Your task to perform on an android device: uninstall "Etsy: Buy & Sell Unique Items" Image 0: 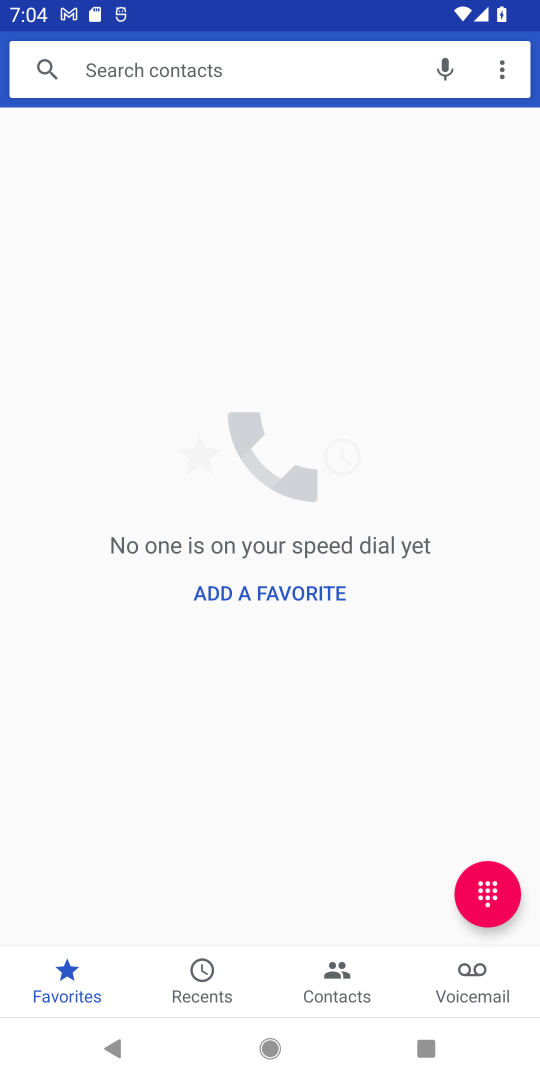
Step 0: press home button
Your task to perform on an android device: uninstall "Etsy: Buy & Sell Unique Items" Image 1: 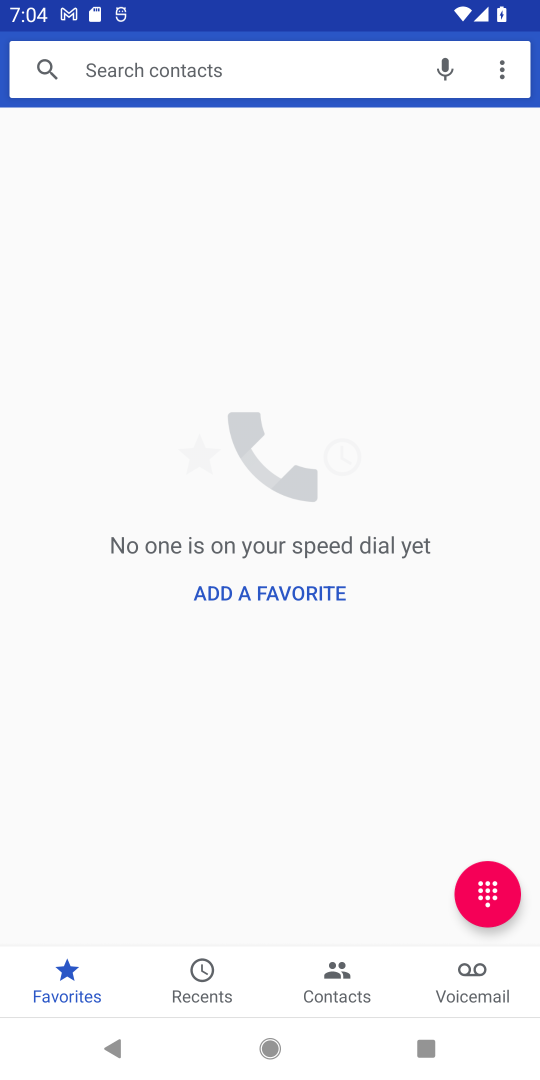
Step 1: press home button
Your task to perform on an android device: uninstall "Etsy: Buy & Sell Unique Items" Image 2: 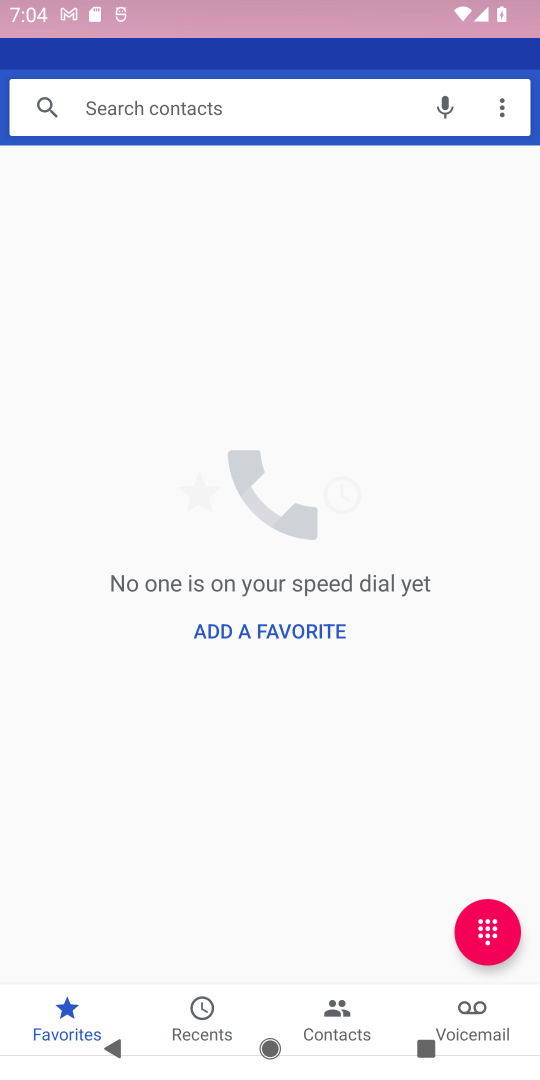
Step 2: press home button
Your task to perform on an android device: uninstall "Etsy: Buy & Sell Unique Items" Image 3: 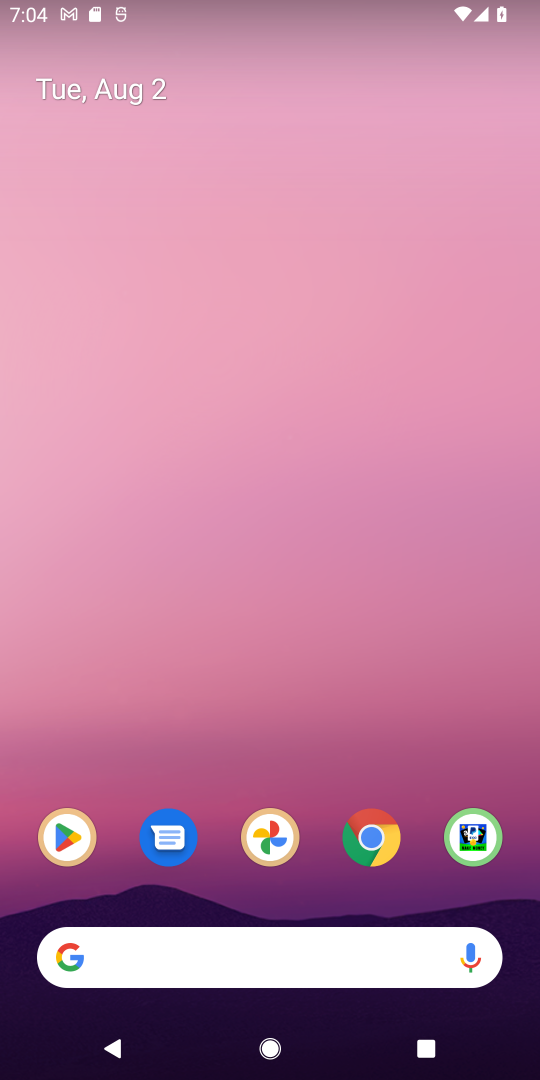
Step 3: click (313, 426)
Your task to perform on an android device: uninstall "Etsy: Buy & Sell Unique Items" Image 4: 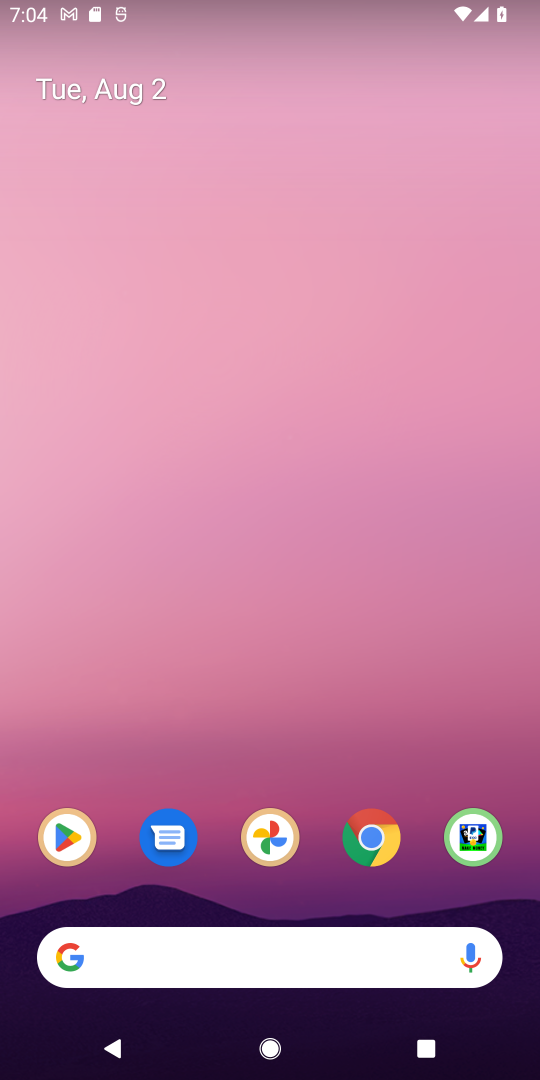
Step 4: drag from (229, 842) to (297, 547)
Your task to perform on an android device: uninstall "Etsy: Buy & Sell Unique Items" Image 5: 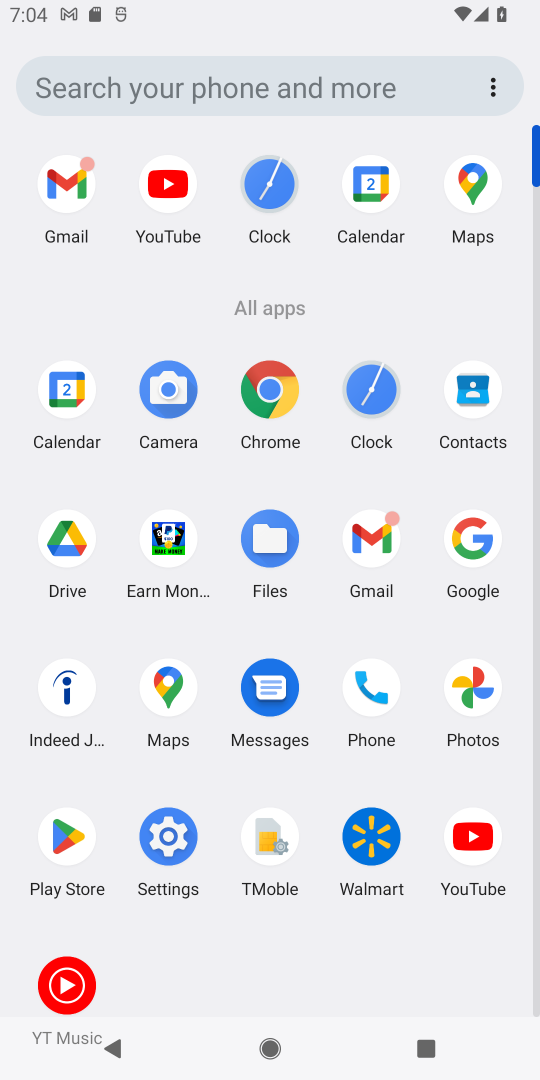
Step 5: click (62, 838)
Your task to perform on an android device: uninstall "Etsy: Buy & Sell Unique Items" Image 6: 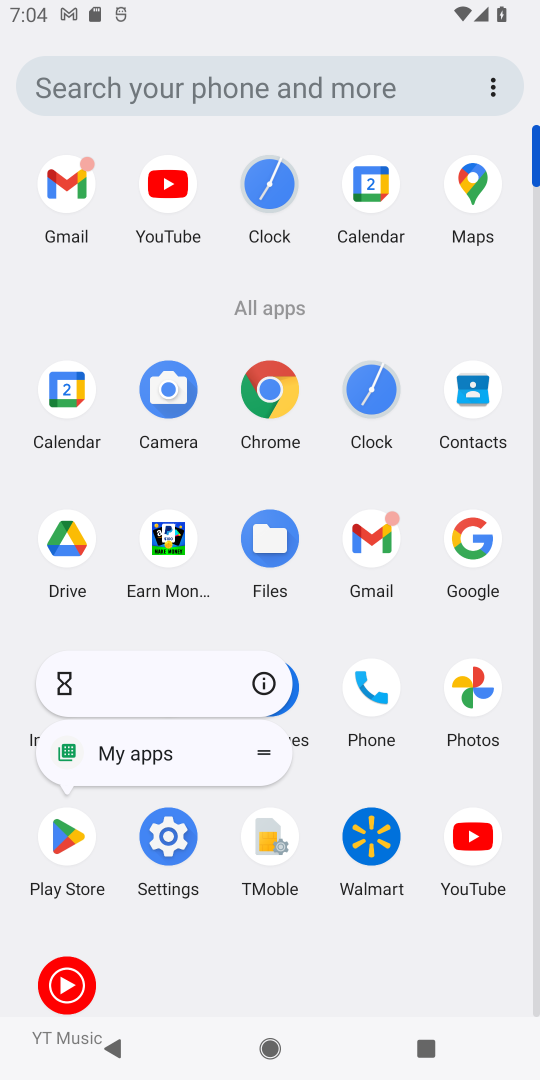
Step 6: click (266, 677)
Your task to perform on an android device: uninstall "Etsy: Buy & Sell Unique Items" Image 7: 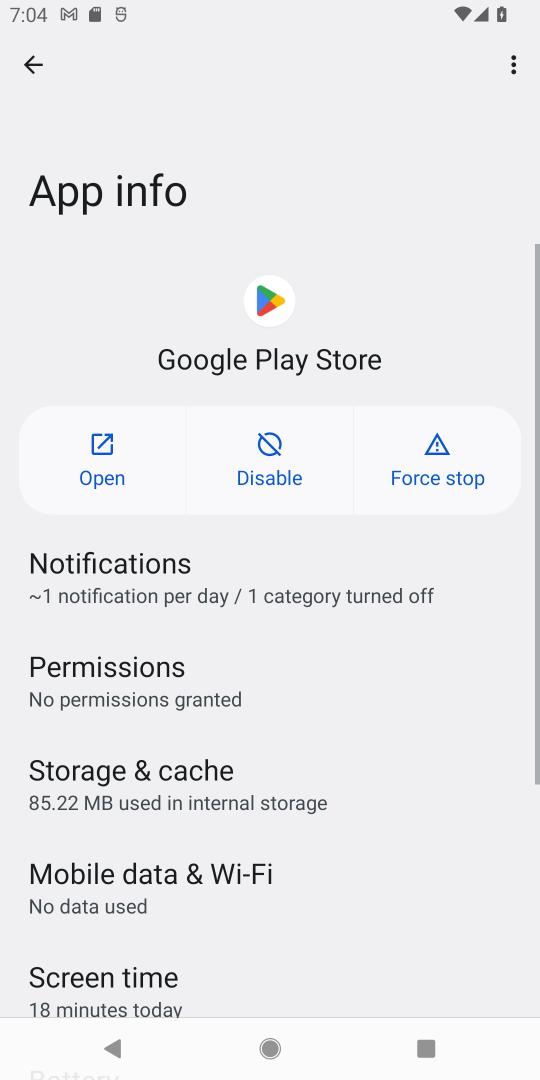
Step 7: click (92, 464)
Your task to perform on an android device: uninstall "Etsy: Buy & Sell Unique Items" Image 8: 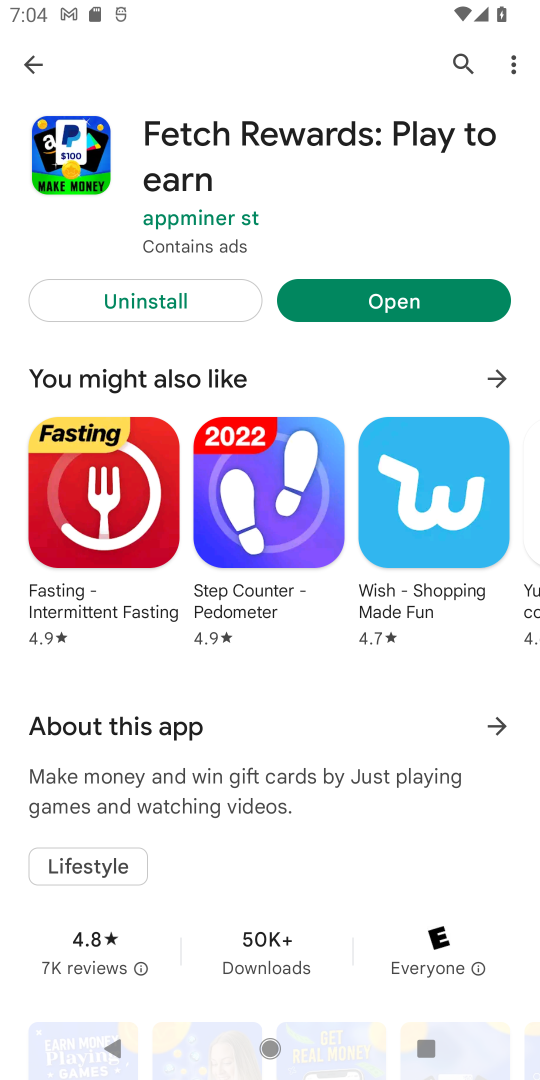
Step 8: click (456, 53)
Your task to perform on an android device: uninstall "Etsy: Buy & Sell Unique Items" Image 9: 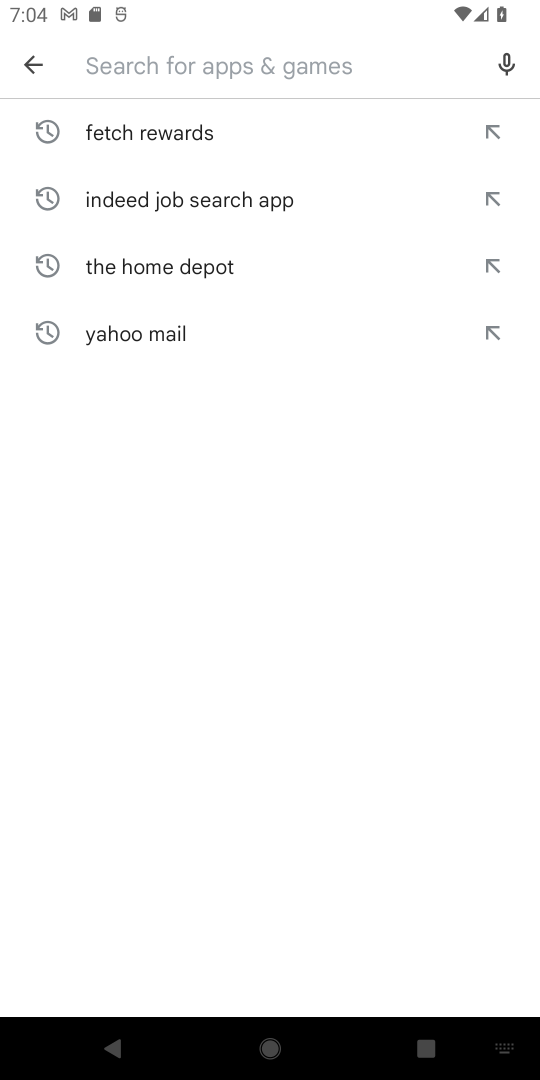
Step 9: click (183, 45)
Your task to perform on an android device: uninstall "Etsy: Buy & Sell Unique Items" Image 10: 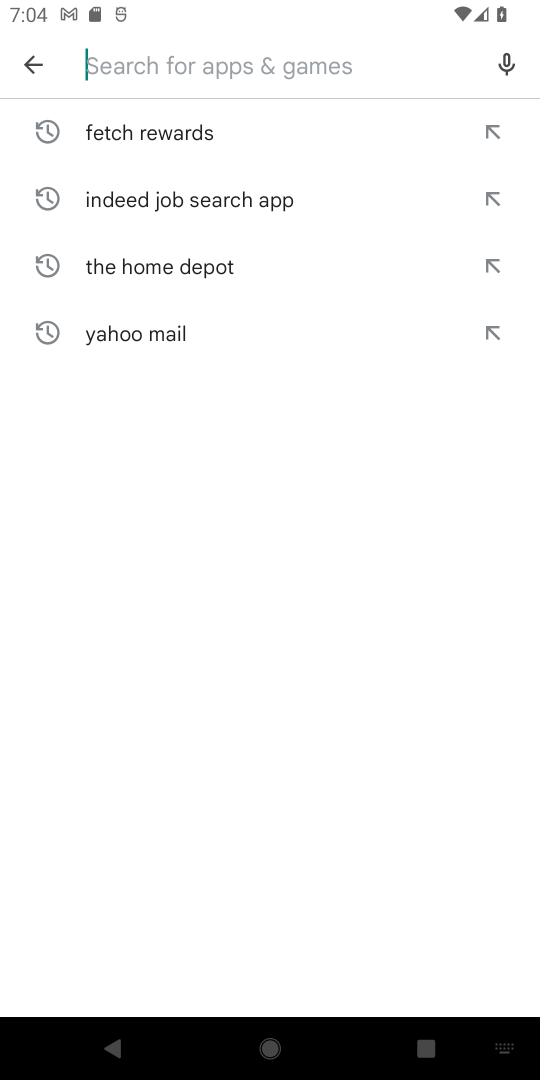
Step 10: click (157, 59)
Your task to perform on an android device: uninstall "Etsy: Buy & Sell Unique Items" Image 11: 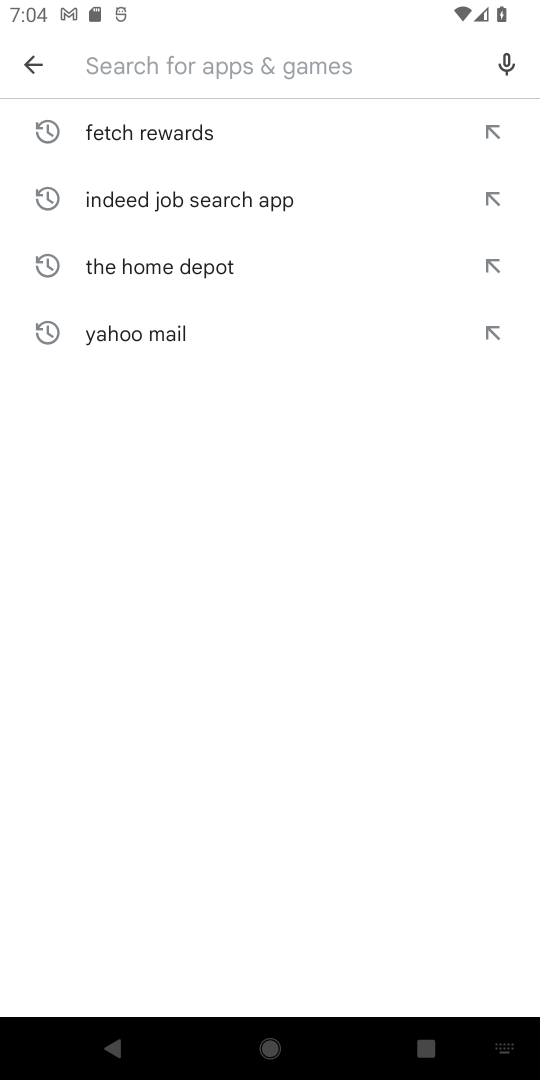
Step 11: type "Etsy: Buy & Sell Unique Items"
Your task to perform on an android device: uninstall "Etsy: Buy & Sell Unique Items" Image 12: 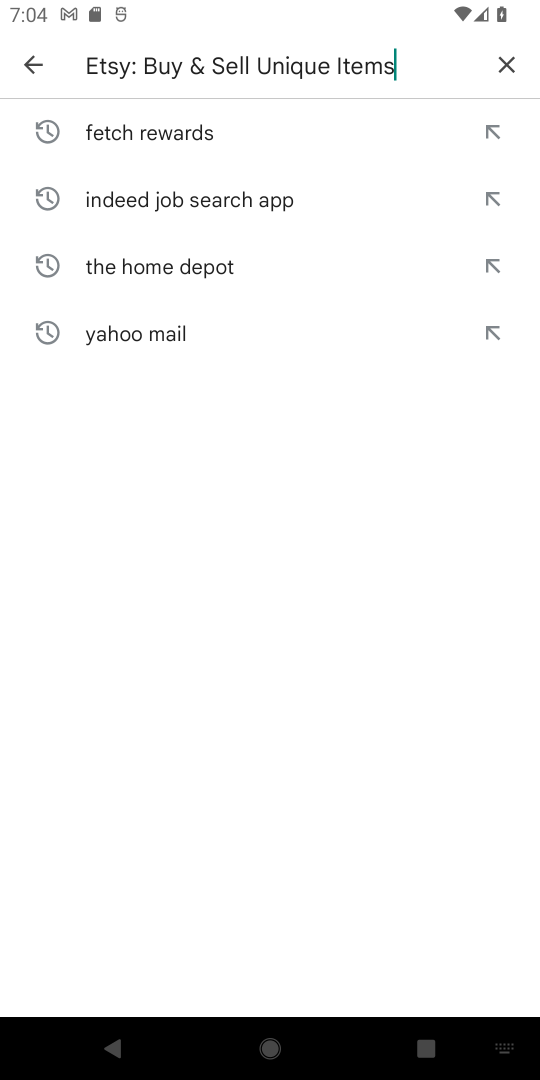
Step 12: type ""
Your task to perform on an android device: uninstall "Etsy: Buy & Sell Unique Items" Image 13: 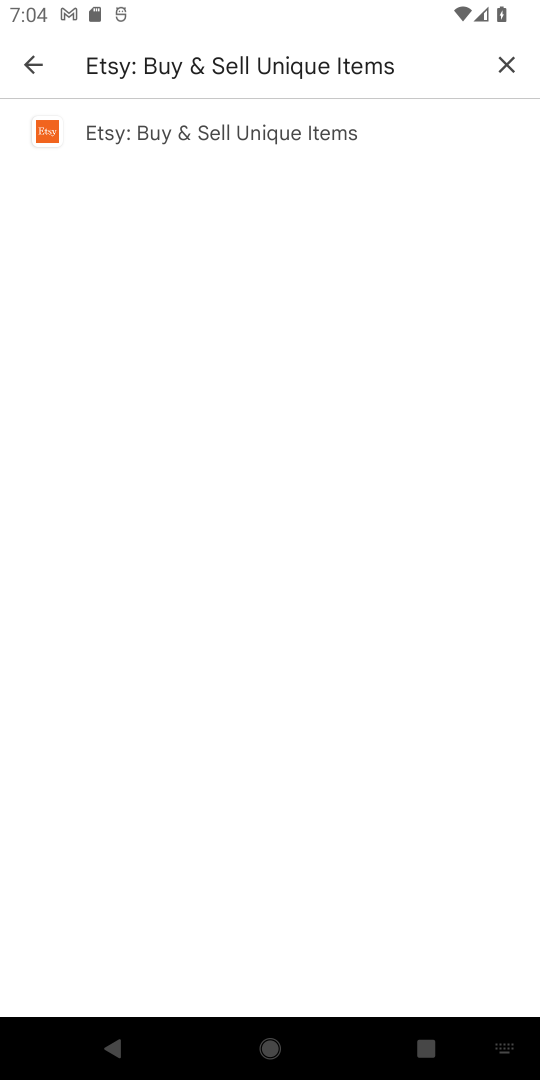
Step 13: click (173, 139)
Your task to perform on an android device: uninstall "Etsy: Buy & Sell Unique Items" Image 14: 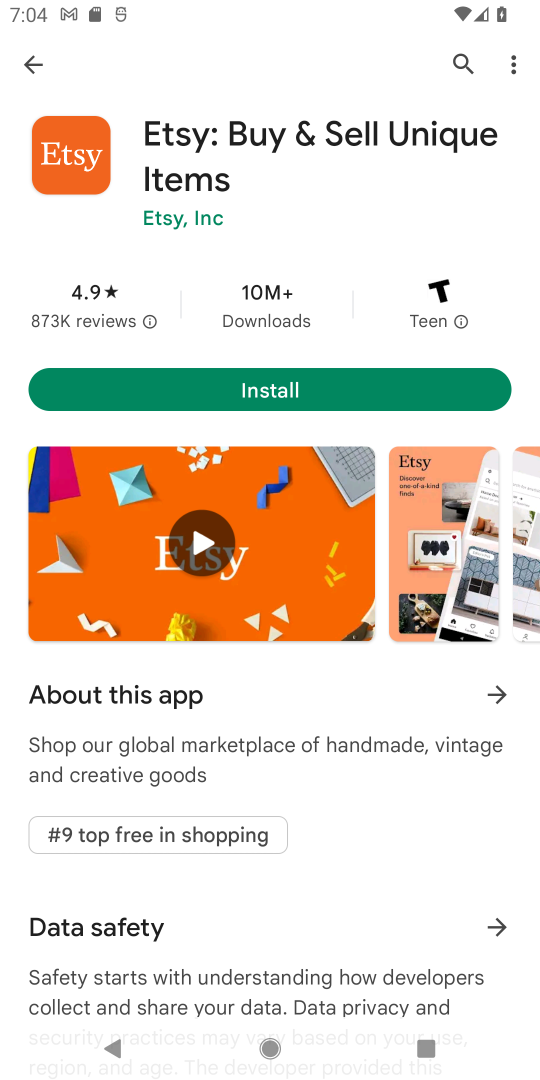
Step 14: task complete